Your task to perform on an android device: Open wifi settings Image 0: 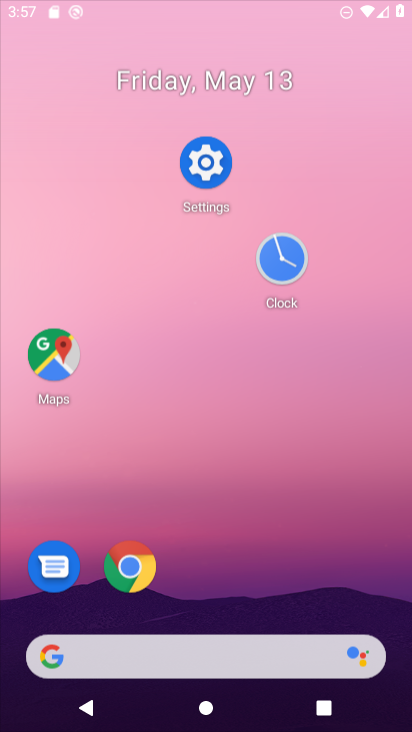
Step 0: click (220, 17)
Your task to perform on an android device: Open wifi settings Image 1: 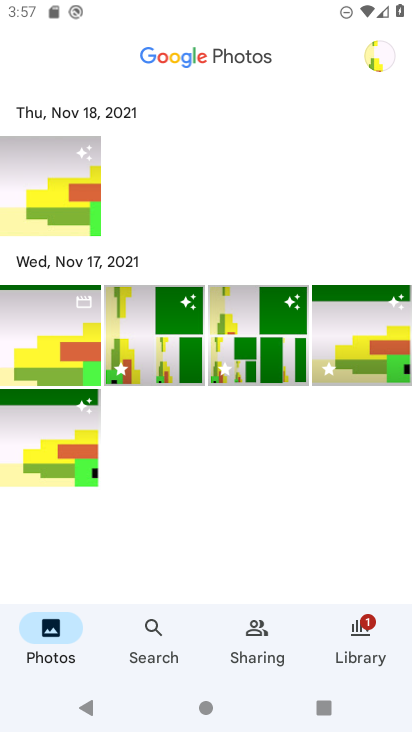
Step 1: press home button
Your task to perform on an android device: Open wifi settings Image 2: 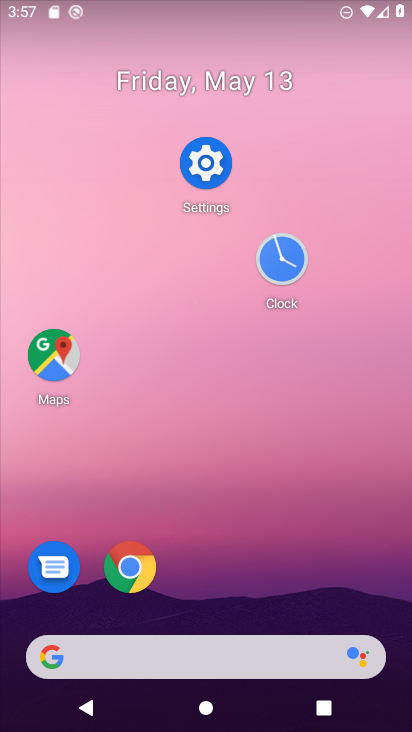
Step 2: click (179, 164)
Your task to perform on an android device: Open wifi settings Image 3: 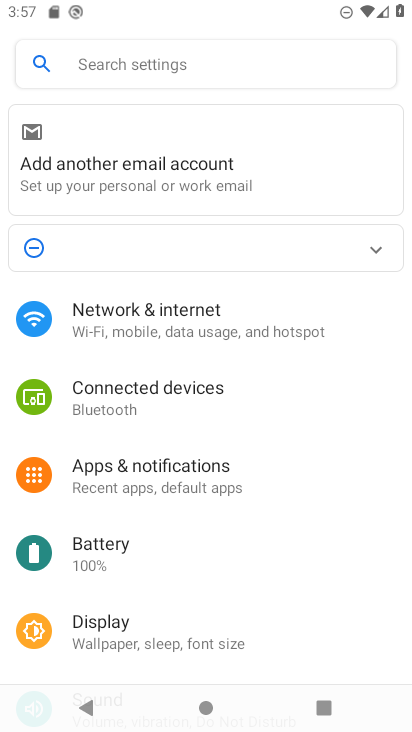
Step 3: click (181, 323)
Your task to perform on an android device: Open wifi settings Image 4: 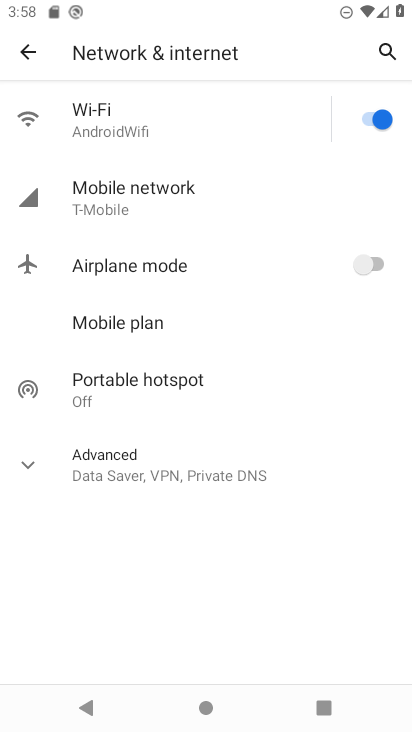
Step 4: click (106, 119)
Your task to perform on an android device: Open wifi settings Image 5: 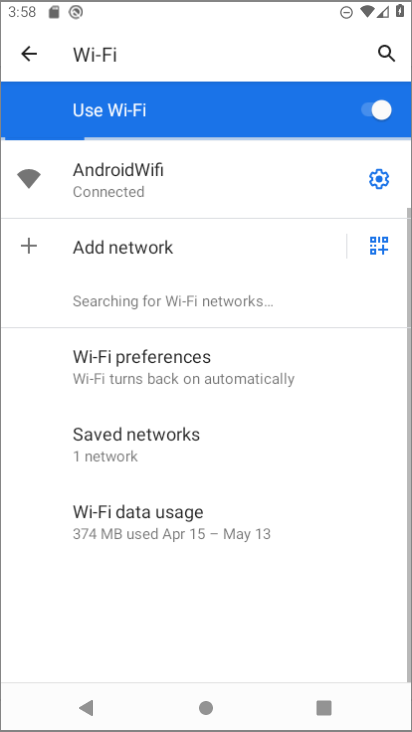
Step 5: task complete